Your task to perform on an android device: turn off wifi Image 0: 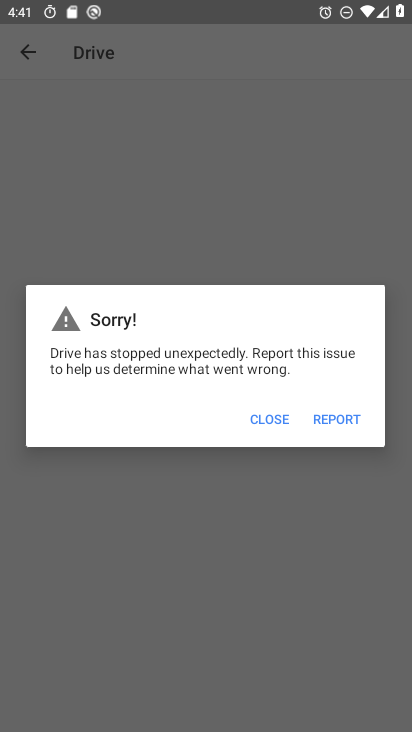
Step 0: press home button
Your task to perform on an android device: turn off wifi Image 1: 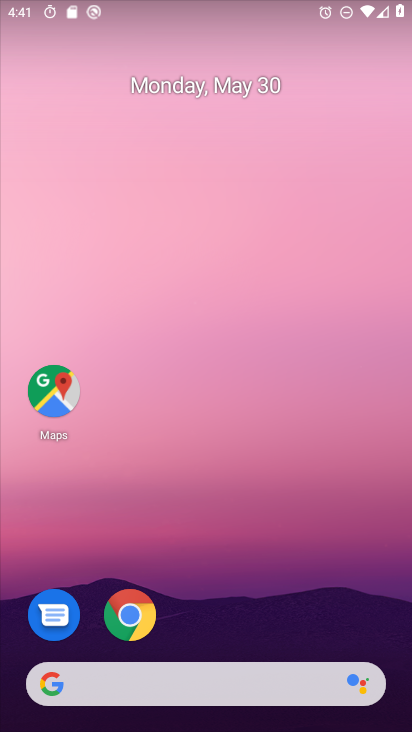
Step 1: drag from (262, 597) to (225, 89)
Your task to perform on an android device: turn off wifi Image 2: 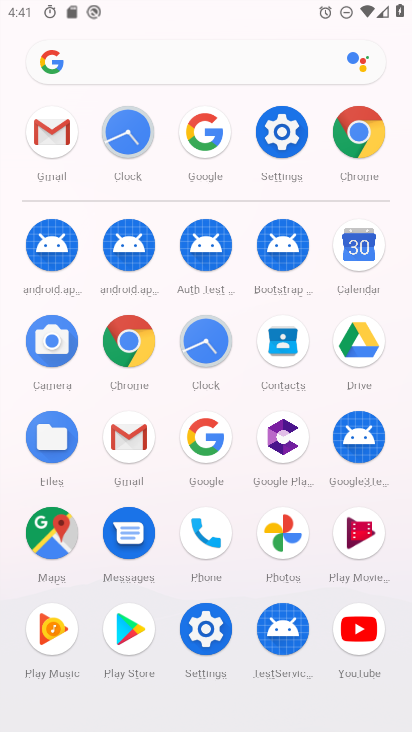
Step 2: click (281, 131)
Your task to perform on an android device: turn off wifi Image 3: 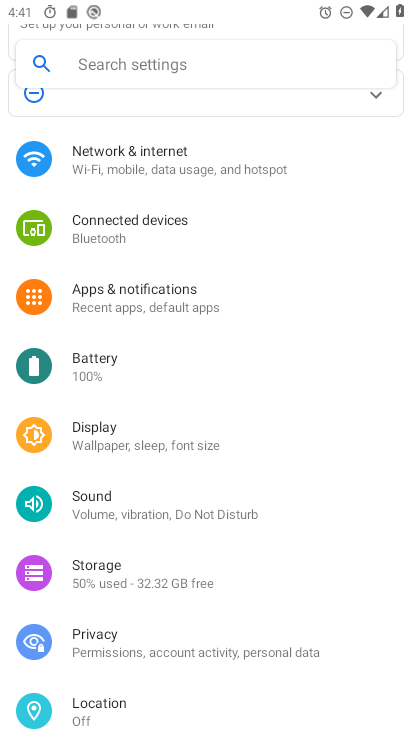
Step 3: drag from (200, 221) to (186, 383)
Your task to perform on an android device: turn off wifi Image 4: 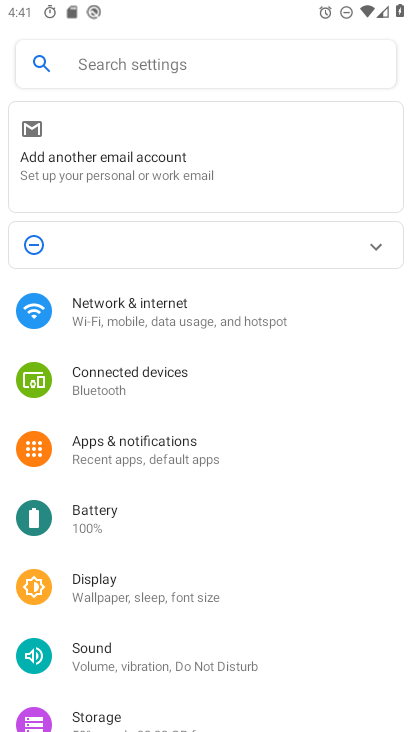
Step 4: click (176, 315)
Your task to perform on an android device: turn off wifi Image 5: 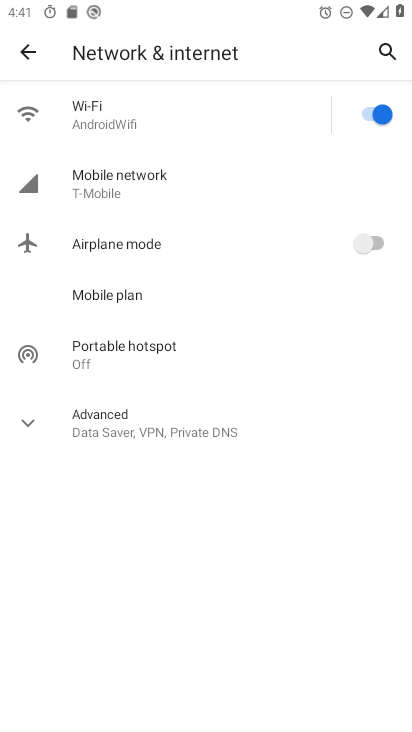
Step 5: click (381, 119)
Your task to perform on an android device: turn off wifi Image 6: 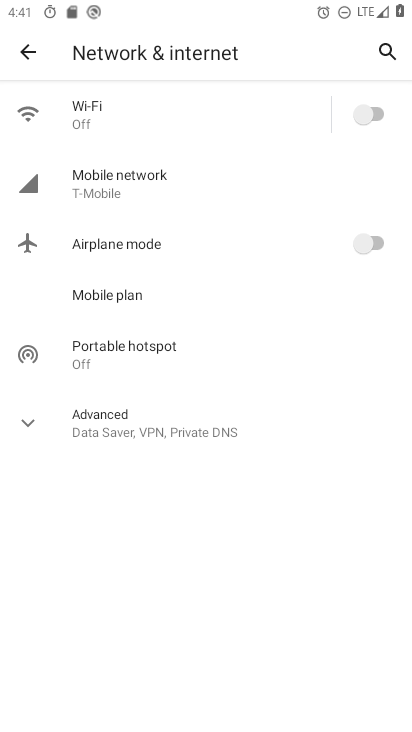
Step 6: task complete